Your task to perform on an android device: Turn off the flashlight Image 0: 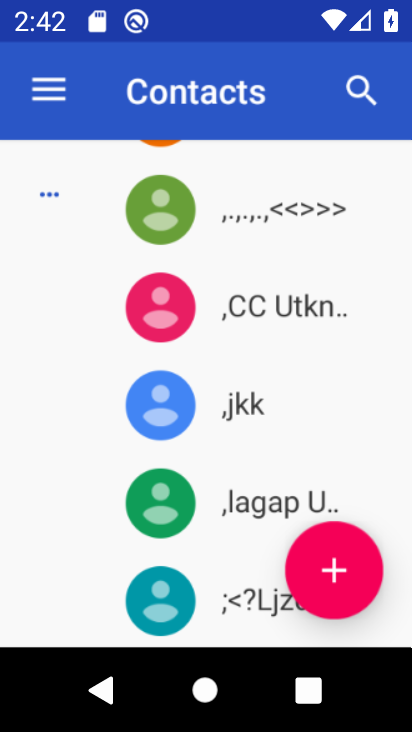
Step 0: click (292, 107)
Your task to perform on an android device: Turn off the flashlight Image 1: 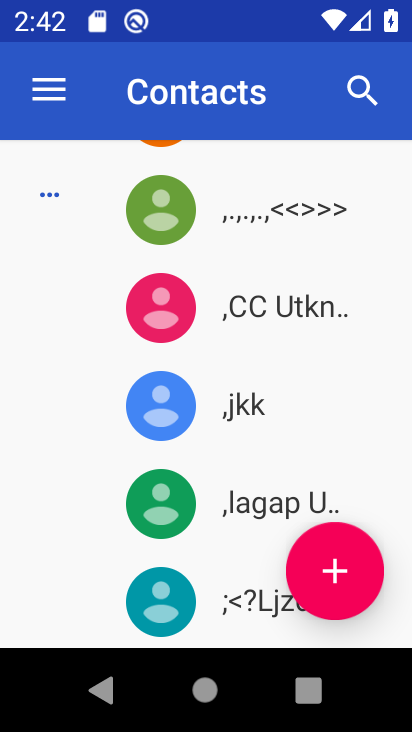
Step 1: press home button
Your task to perform on an android device: Turn off the flashlight Image 2: 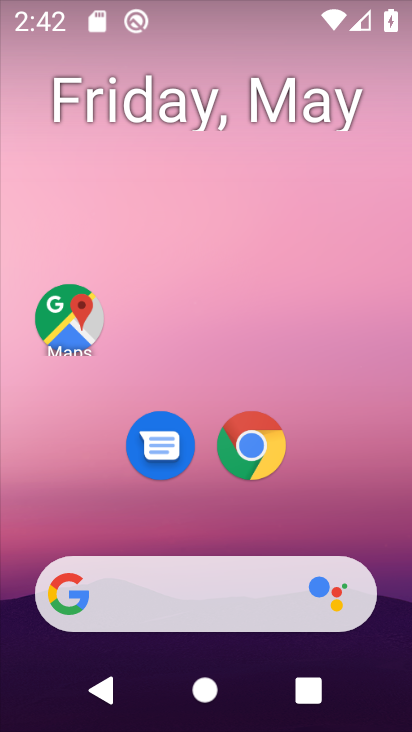
Step 2: drag from (241, 535) to (326, 184)
Your task to perform on an android device: Turn off the flashlight Image 3: 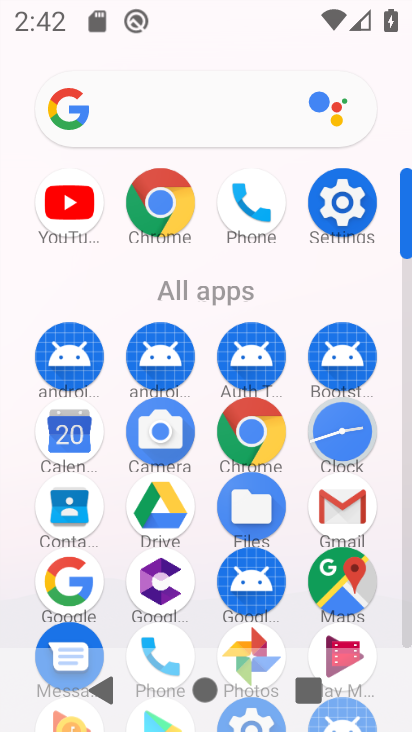
Step 3: click (336, 202)
Your task to perform on an android device: Turn off the flashlight Image 4: 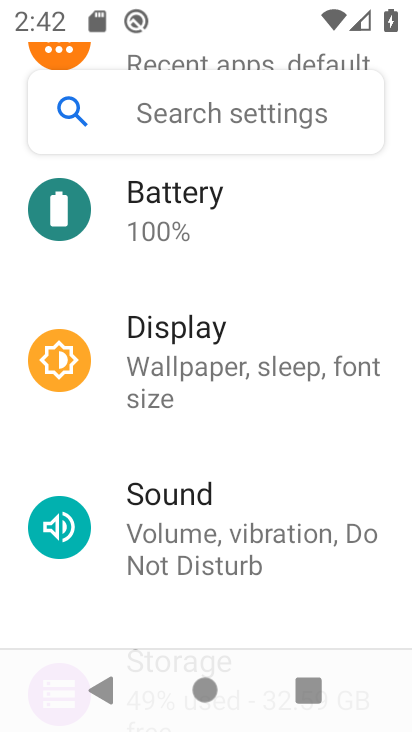
Step 4: drag from (201, 288) to (320, 693)
Your task to perform on an android device: Turn off the flashlight Image 5: 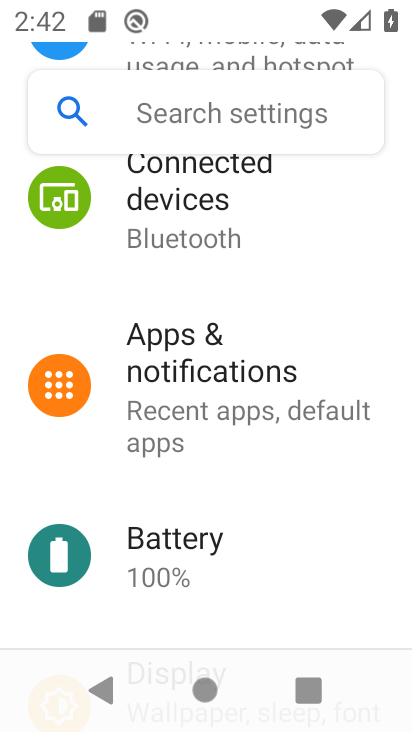
Step 5: click (187, 123)
Your task to perform on an android device: Turn off the flashlight Image 6: 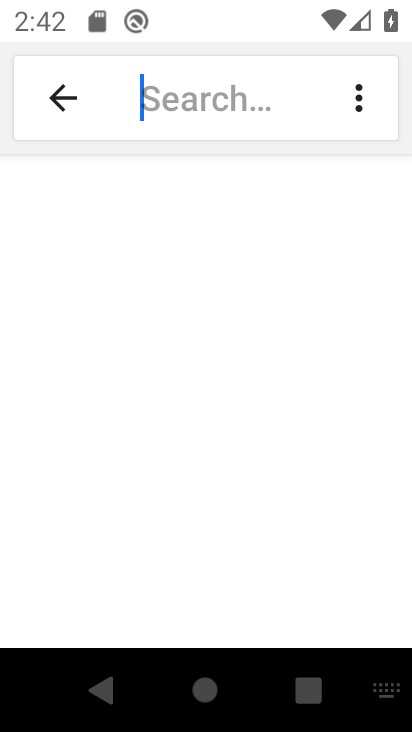
Step 6: type " flashlight"
Your task to perform on an android device: Turn off the flashlight Image 7: 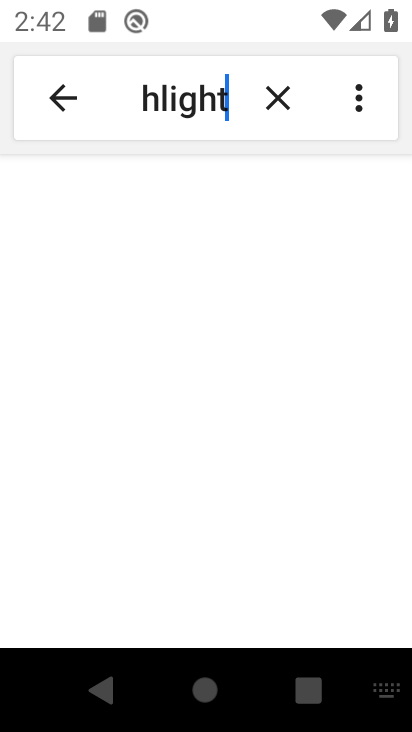
Step 7: type ""
Your task to perform on an android device: Turn off the flashlight Image 8: 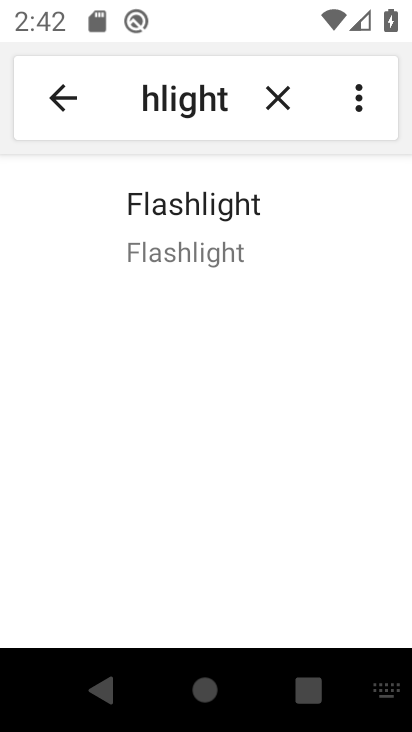
Step 8: click (170, 205)
Your task to perform on an android device: Turn off the flashlight Image 9: 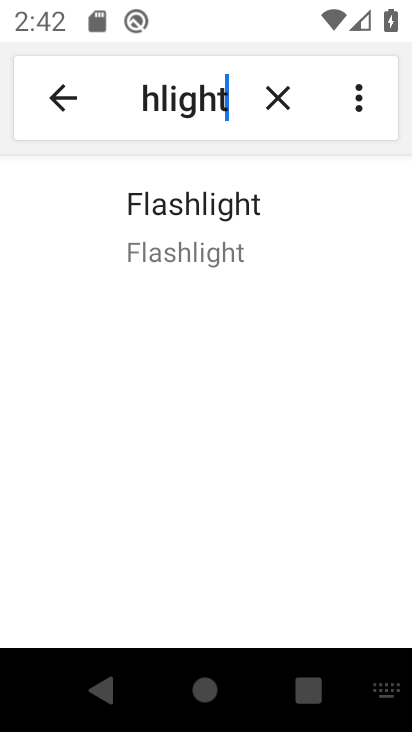
Step 9: task complete